Your task to perform on an android device: Open CNN.com Image 0: 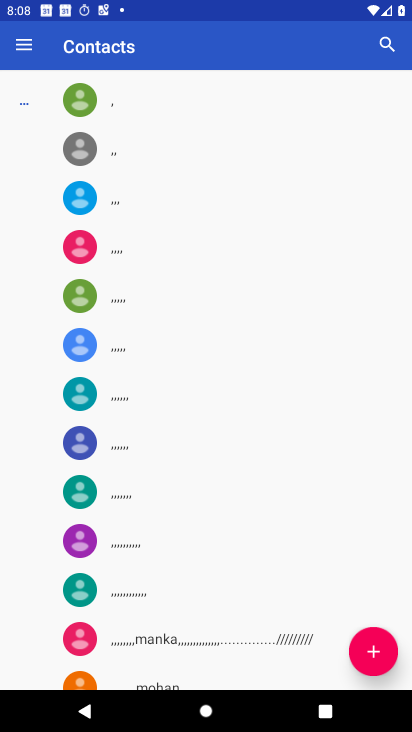
Step 0: press home button
Your task to perform on an android device: Open CNN.com Image 1: 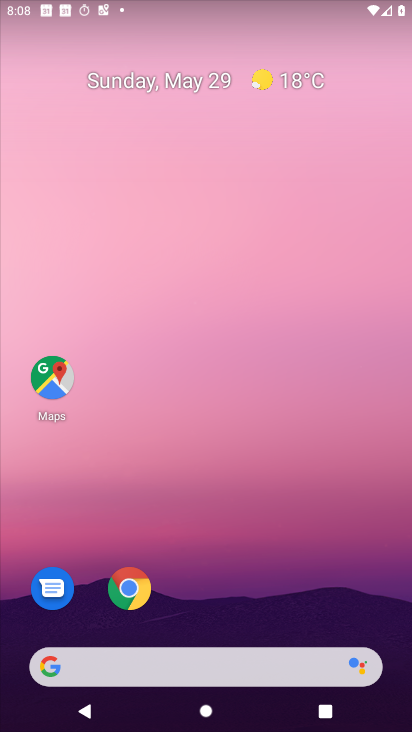
Step 1: drag from (239, 524) to (310, 178)
Your task to perform on an android device: Open CNN.com Image 2: 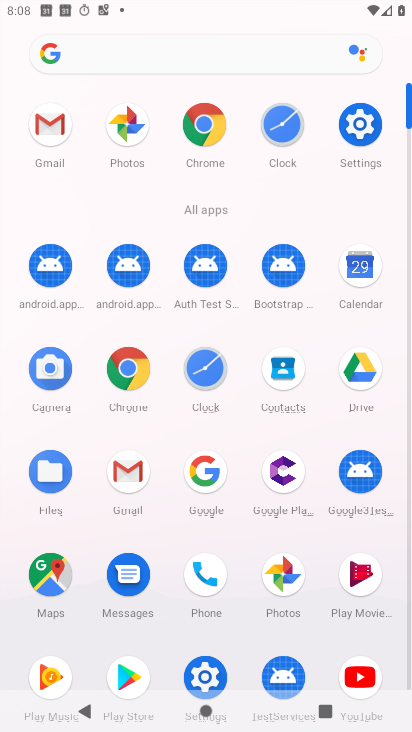
Step 2: click (201, 460)
Your task to perform on an android device: Open CNN.com Image 3: 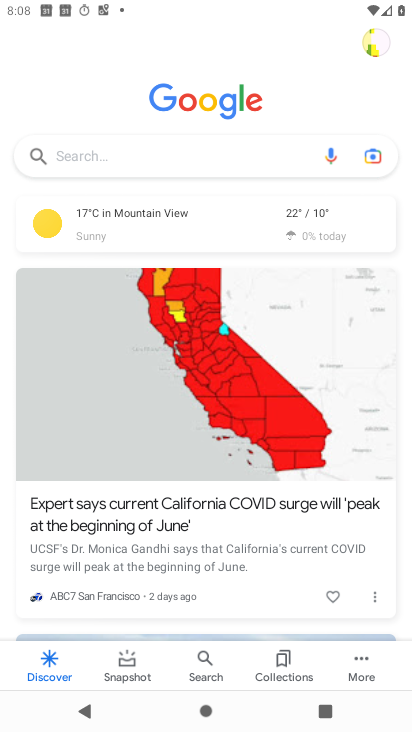
Step 3: click (197, 156)
Your task to perform on an android device: Open CNN.com Image 4: 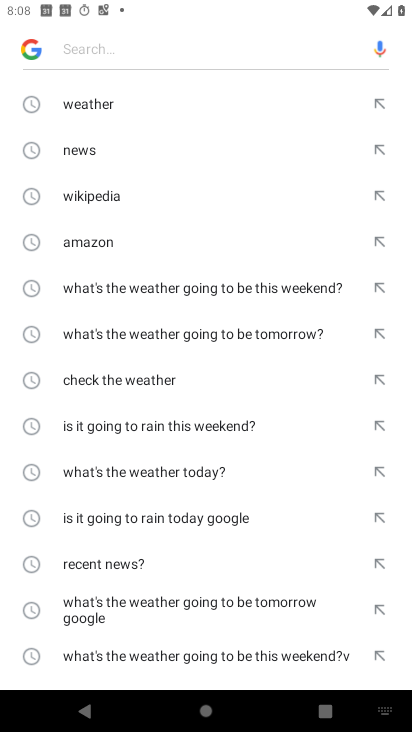
Step 4: drag from (189, 573) to (149, 213)
Your task to perform on an android device: Open CNN.com Image 5: 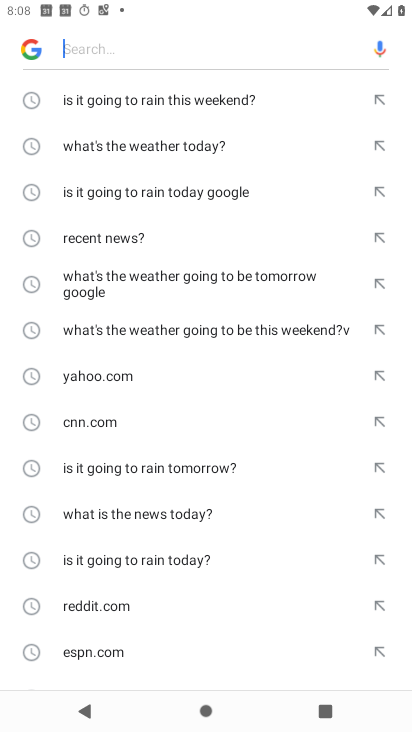
Step 5: click (79, 409)
Your task to perform on an android device: Open CNN.com Image 6: 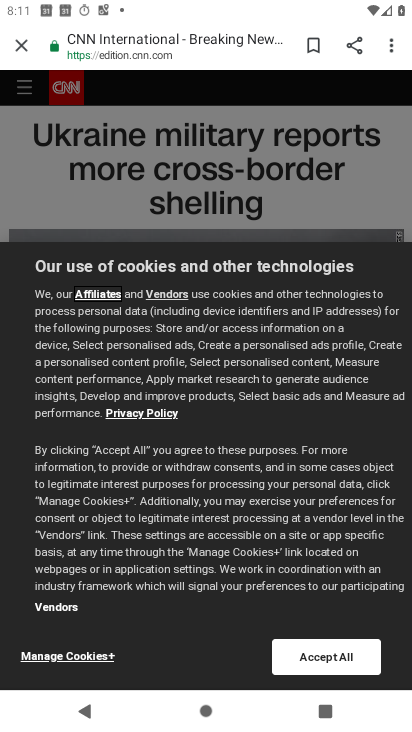
Step 6: task complete